Your task to perform on an android device: change timer sound Image 0: 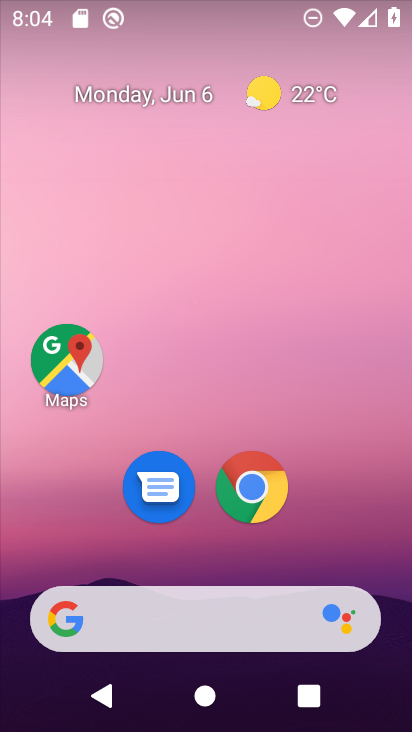
Step 0: drag from (400, 603) to (282, 95)
Your task to perform on an android device: change timer sound Image 1: 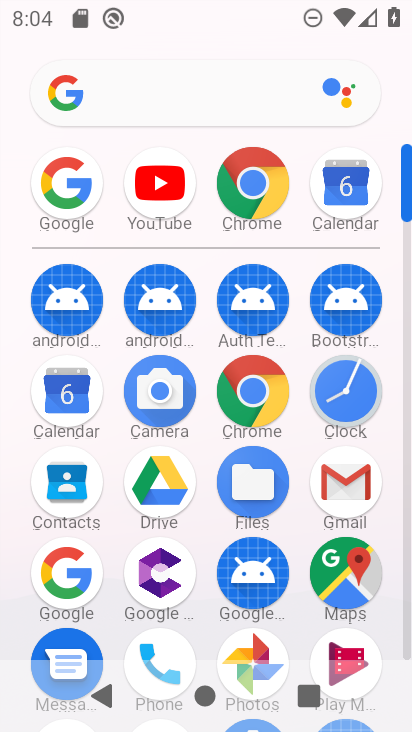
Step 1: click (342, 385)
Your task to perform on an android device: change timer sound Image 2: 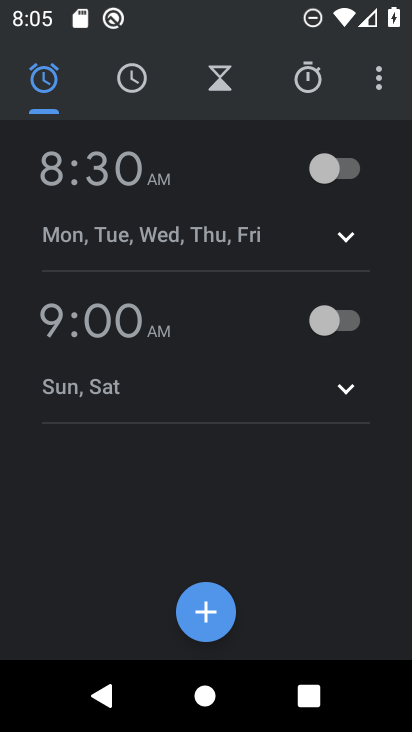
Step 2: click (385, 70)
Your task to perform on an android device: change timer sound Image 3: 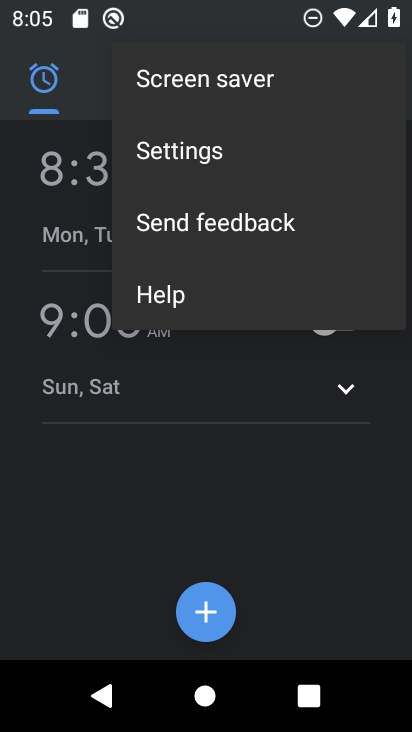
Step 3: click (266, 160)
Your task to perform on an android device: change timer sound Image 4: 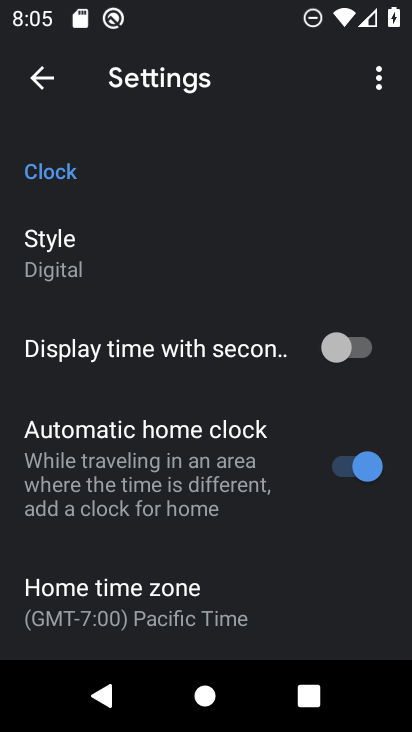
Step 4: drag from (210, 591) to (184, 207)
Your task to perform on an android device: change timer sound Image 5: 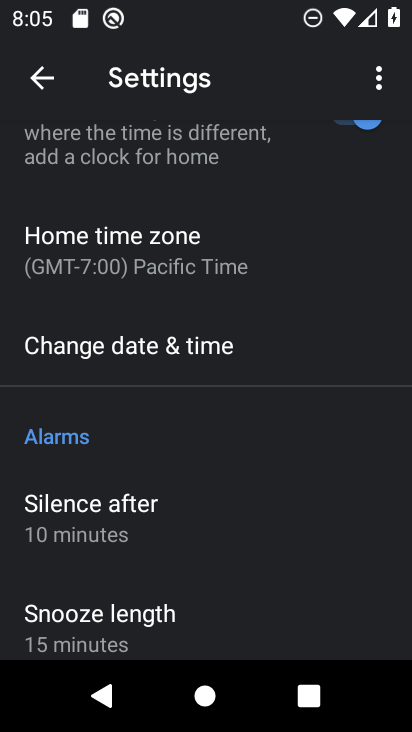
Step 5: click (151, 571)
Your task to perform on an android device: change timer sound Image 6: 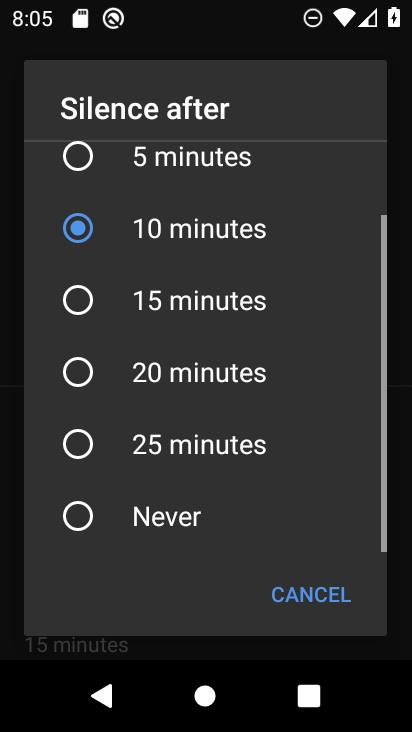
Step 6: drag from (205, 227) to (205, 192)
Your task to perform on an android device: change timer sound Image 7: 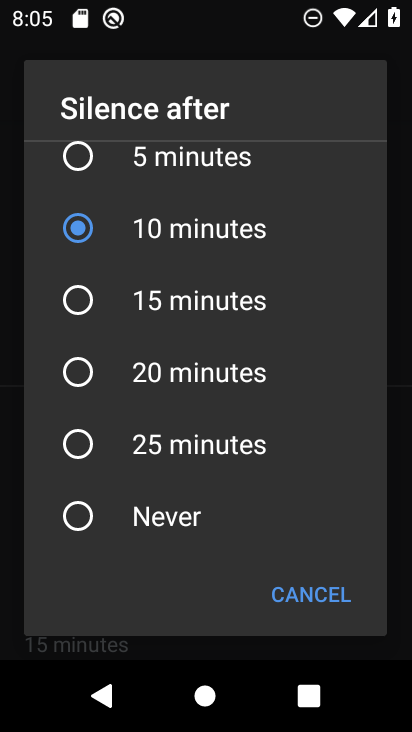
Step 7: click (326, 589)
Your task to perform on an android device: change timer sound Image 8: 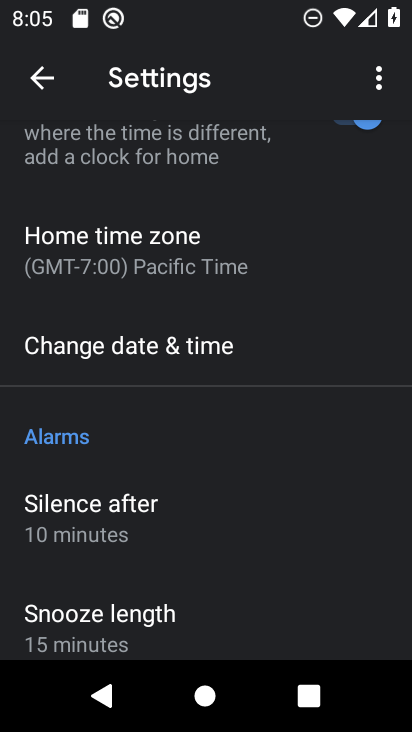
Step 8: drag from (298, 384) to (298, 307)
Your task to perform on an android device: change timer sound Image 9: 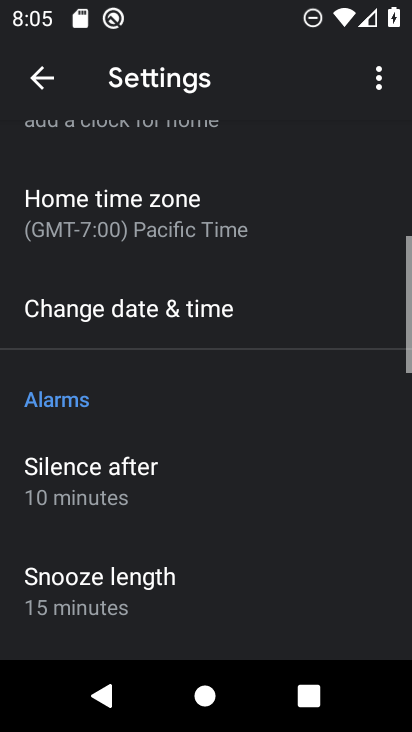
Step 9: click (291, 197)
Your task to perform on an android device: change timer sound Image 10: 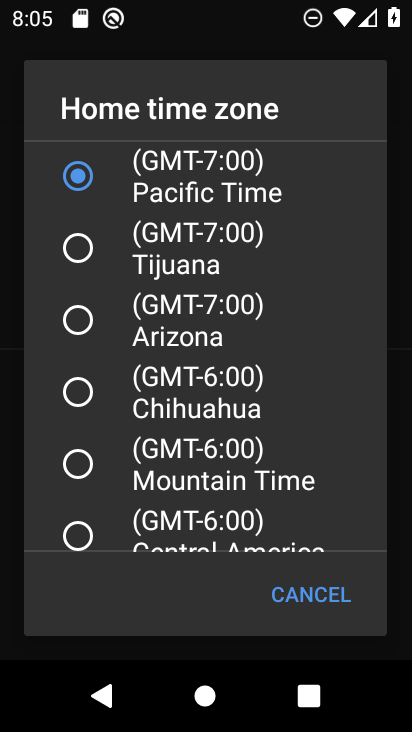
Step 10: press back button
Your task to perform on an android device: change timer sound Image 11: 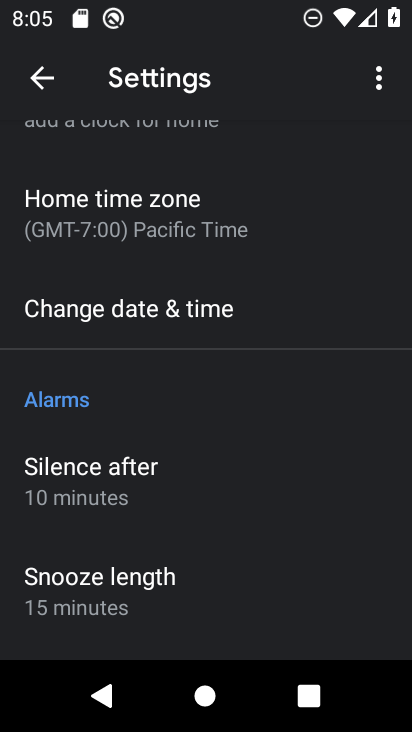
Step 11: drag from (209, 576) to (221, 162)
Your task to perform on an android device: change timer sound Image 12: 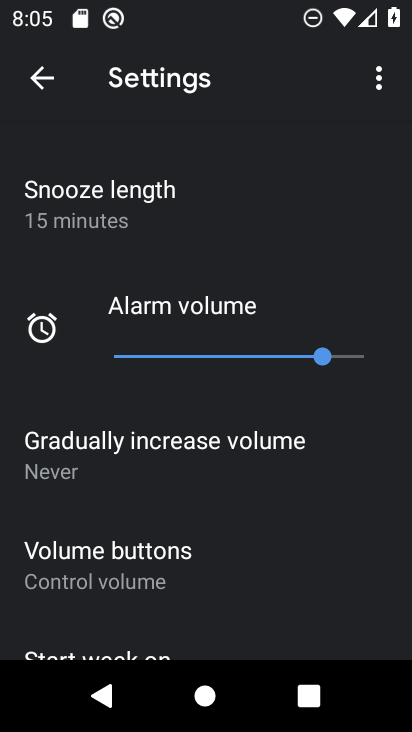
Step 12: drag from (178, 581) to (201, 142)
Your task to perform on an android device: change timer sound Image 13: 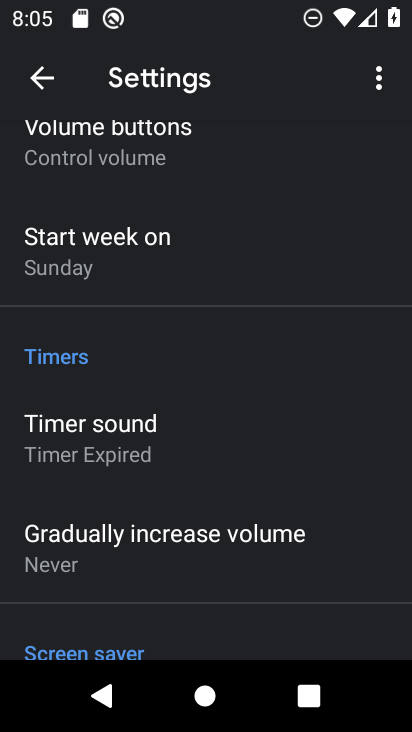
Step 13: click (169, 429)
Your task to perform on an android device: change timer sound Image 14: 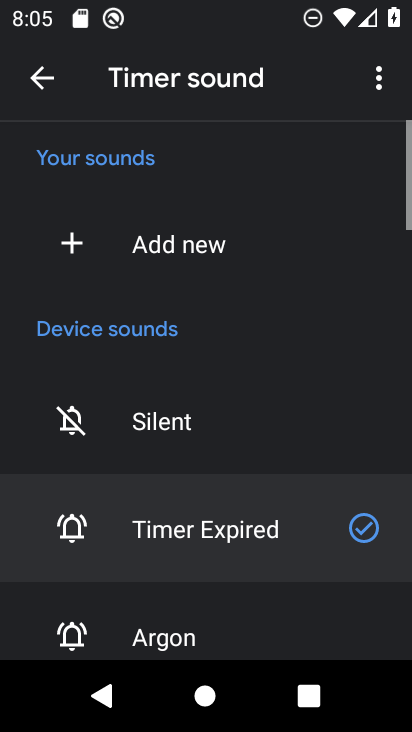
Step 14: click (203, 620)
Your task to perform on an android device: change timer sound Image 15: 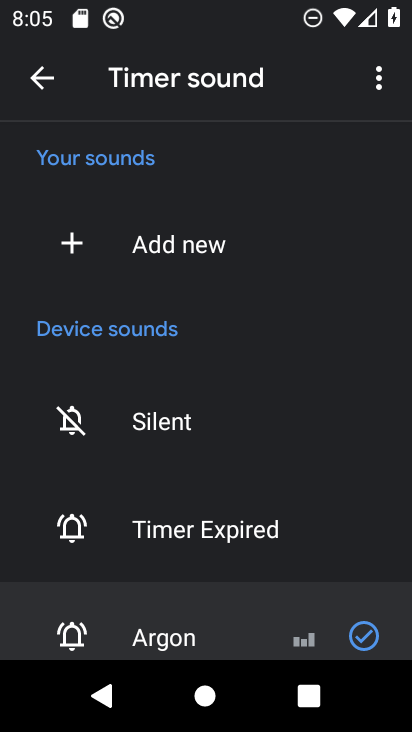
Step 15: task complete